Your task to perform on an android device: turn notification dots on Image 0: 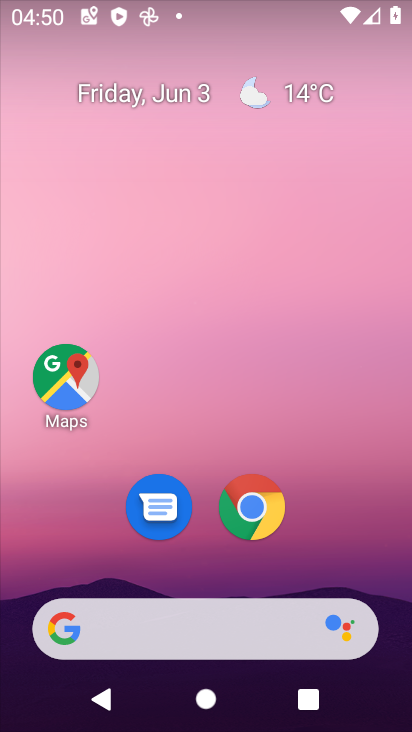
Step 0: press home button
Your task to perform on an android device: turn notification dots on Image 1: 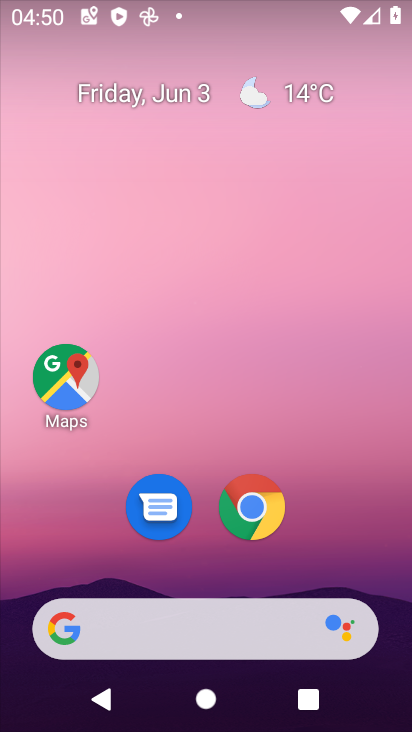
Step 1: drag from (349, 545) to (311, 104)
Your task to perform on an android device: turn notification dots on Image 2: 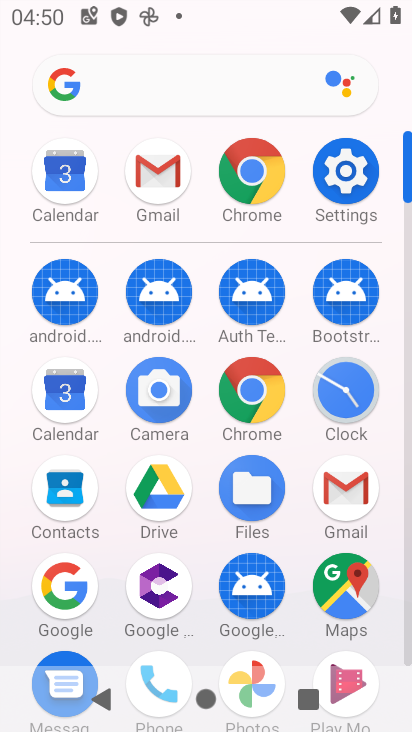
Step 2: click (348, 169)
Your task to perform on an android device: turn notification dots on Image 3: 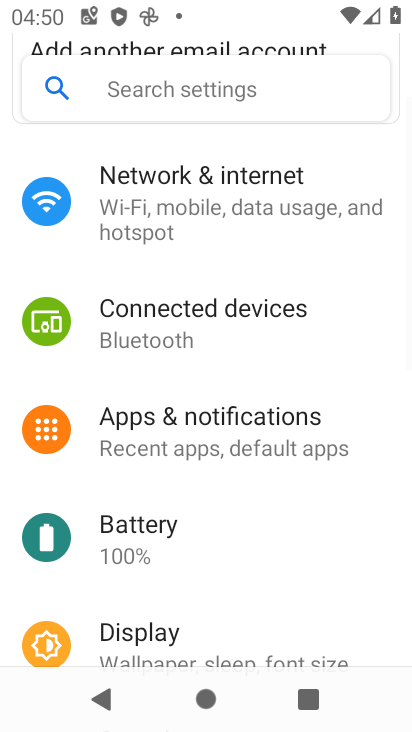
Step 3: click (249, 414)
Your task to perform on an android device: turn notification dots on Image 4: 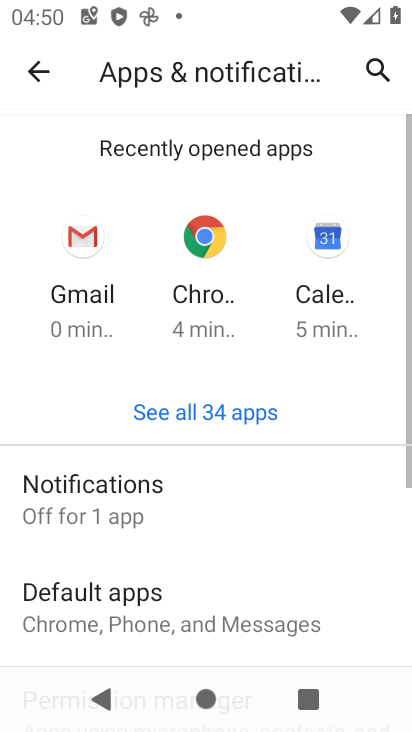
Step 4: drag from (360, 611) to (322, 308)
Your task to perform on an android device: turn notification dots on Image 5: 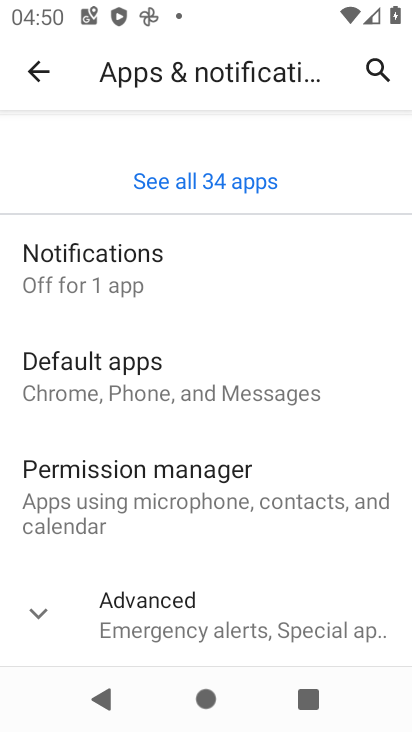
Step 5: click (223, 250)
Your task to perform on an android device: turn notification dots on Image 6: 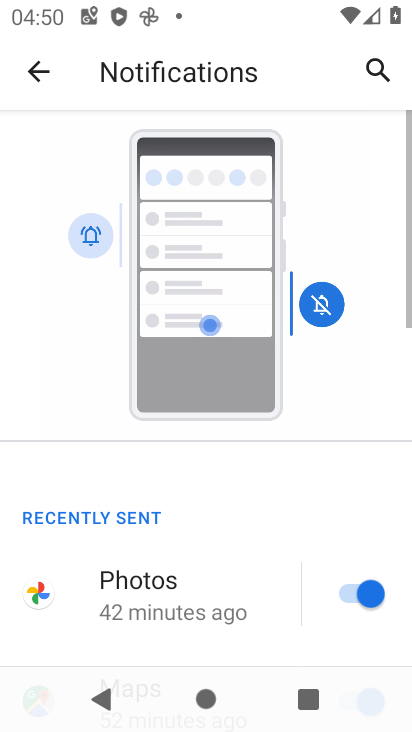
Step 6: drag from (277, 571) to (239, 44)
Your task to perform on an android device: turn notification dots on Image 7: 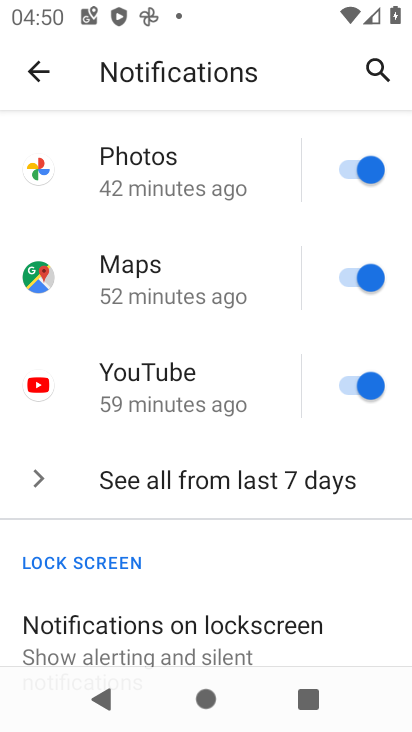
Step 7: drag from (240, 580) to (233, 204)
Your task to perform on an android device: turn notification dots on Image 8: 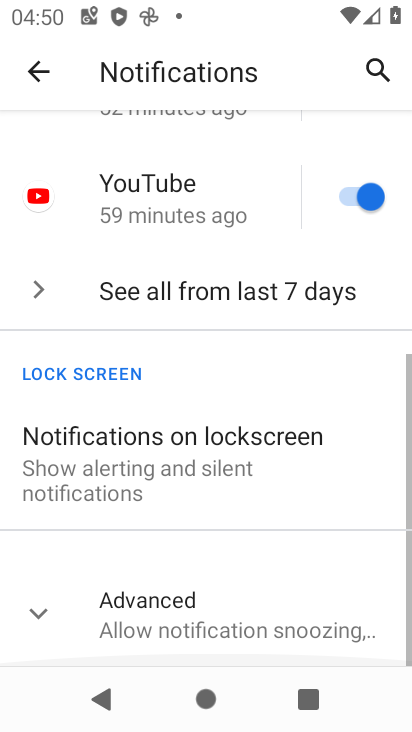
Step 8: click (23, 602)
Your task to perform on an android device: turn notification dots on Image 9: 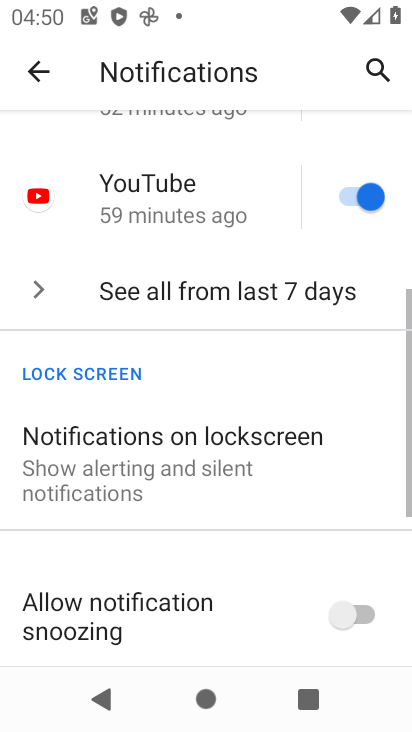
Step 9: task complete